Your task to perform on an android device: Open network settings Image 0: 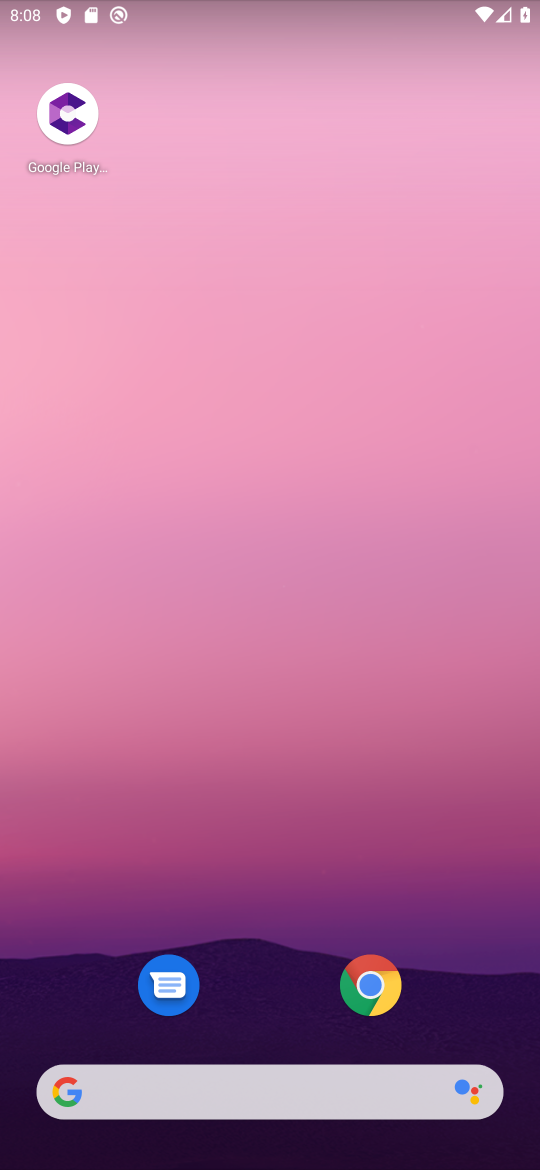
Step 0: drag from (275, 944) to (286, 184)
Your task to perform on an android device: Open network settings Image 1: 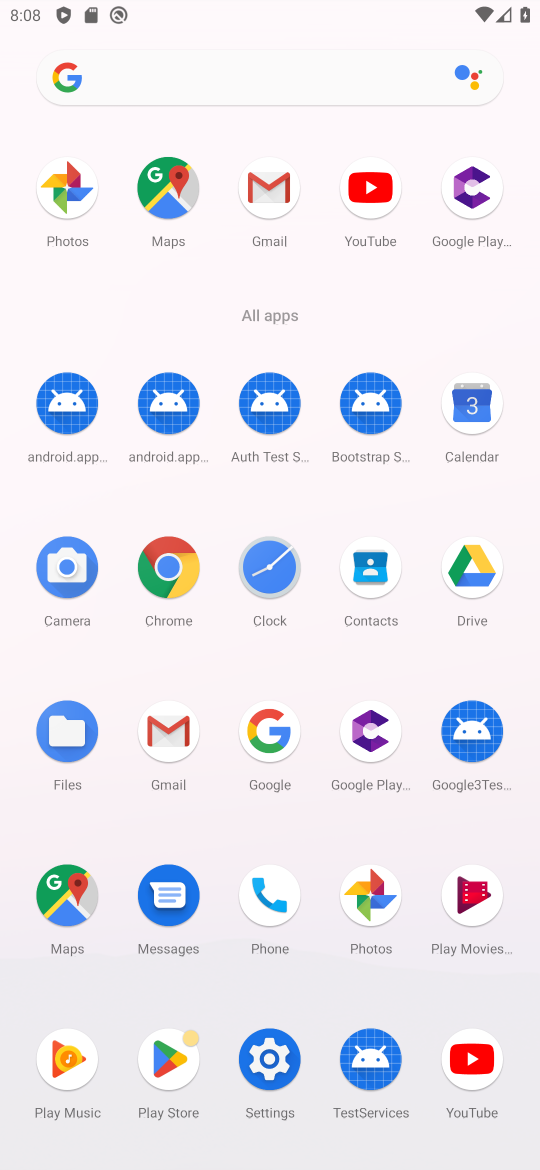
Step 1: click (283, 1042)
Your task to perform on an android device: Open network settings Image 2: 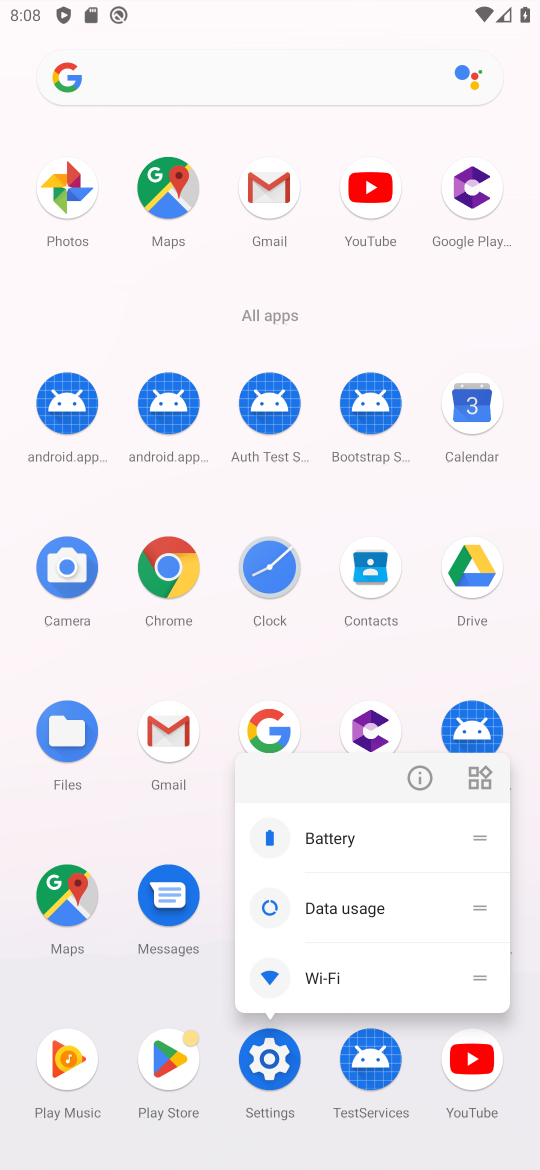
Step 2: click (259, 1080)
Your task to perform on an android device: Open network settings Image 3: 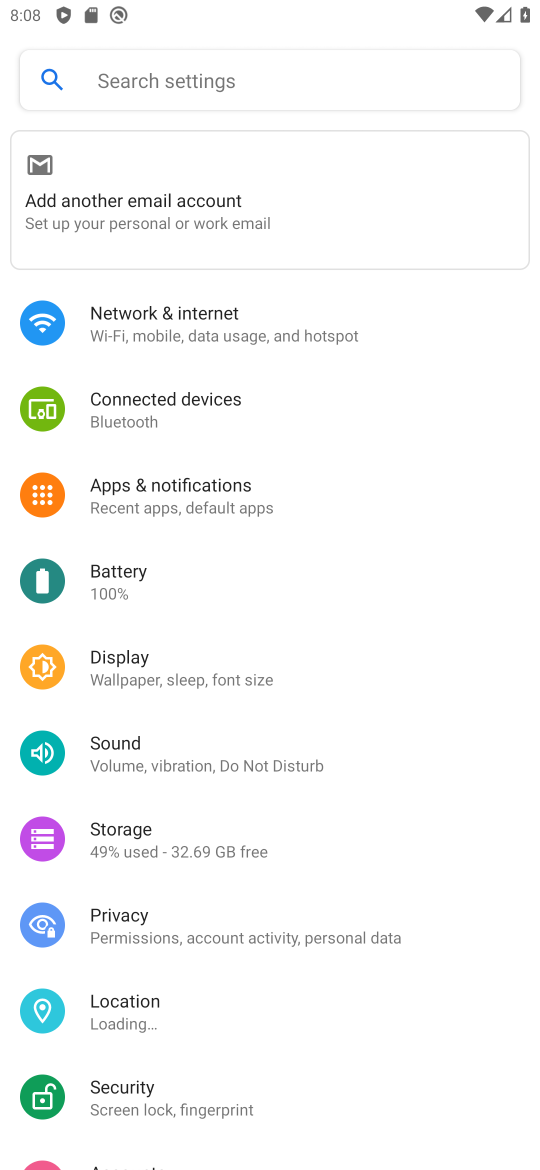
Step 3: click (176, 313)
Your task to perform on an android device: Open network settings Image 4: 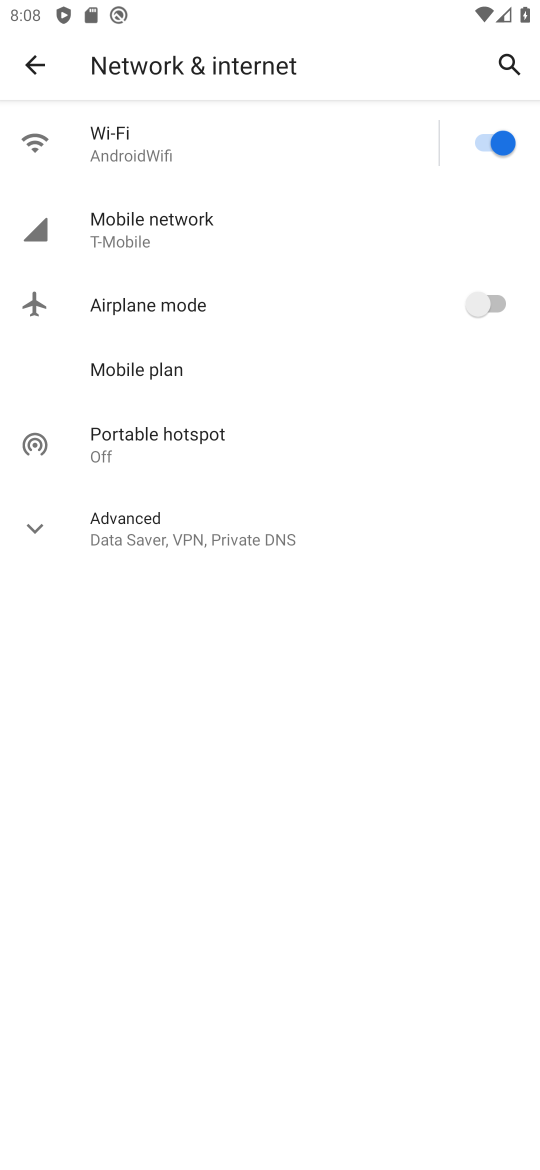
Step 4: task complete